Your task to perform on an android device: Turn off the flashlight Image 0: 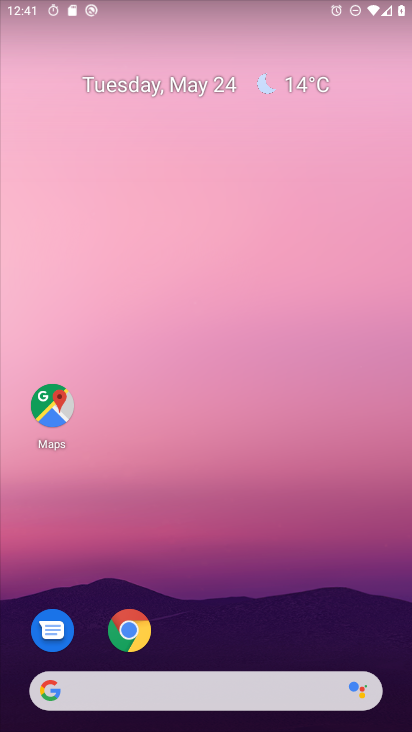
Step 0: drag from (371, 633) to (370, 151)
Your task to perform on an android device: Turn off the flashlight Image 1: 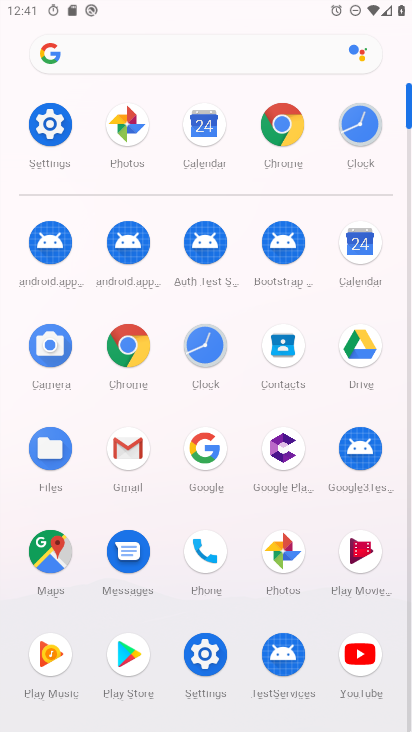
Step 1: click (55, 138)
Your task to perform on an android device: Turn off the flashlight Image 2: 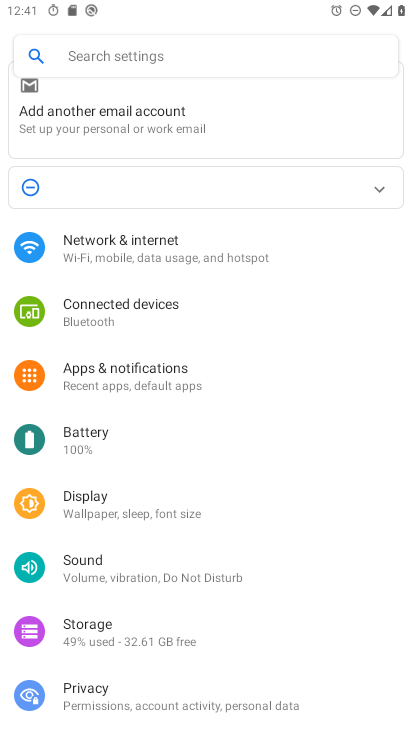
Step 2: click (170, 55)
Your task to perform on an android device: Turn off the flashlight Image 3: 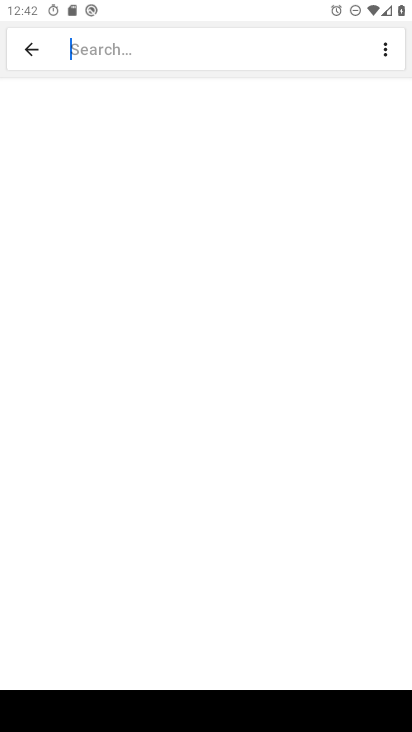
Step 3: type "flashlight"
Your task to perform on an android device: Turn off the flashlight Image 4: 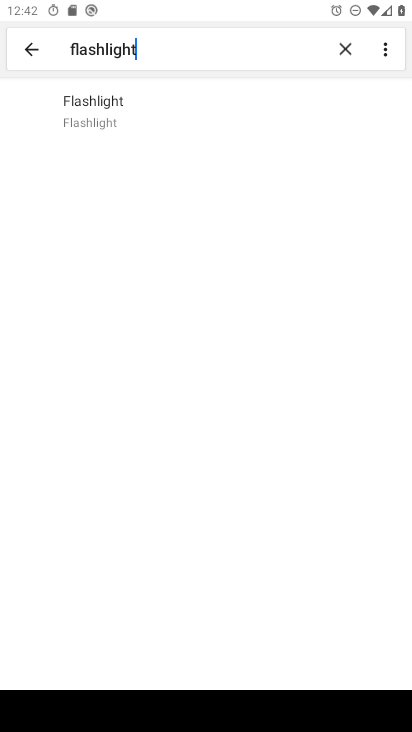
Step 4: click (123, 113)
Your task to perform on an android device: Turn off the flashlight Image 5: 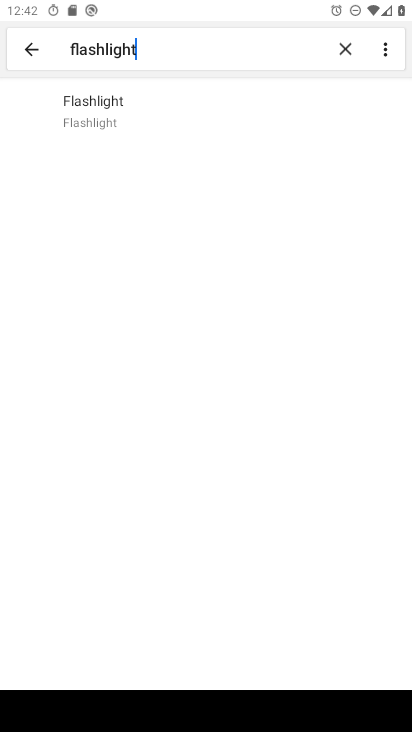
Step 5: task complete